Your task to perform on an android device: star an email in the gmail app Image 0: 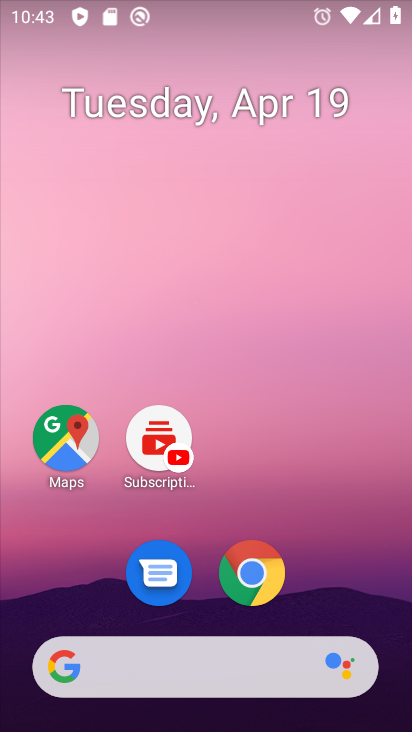
Step 0: click (258, 586)
Your task to perform on an android device: star an email in the gmail app Image 1: 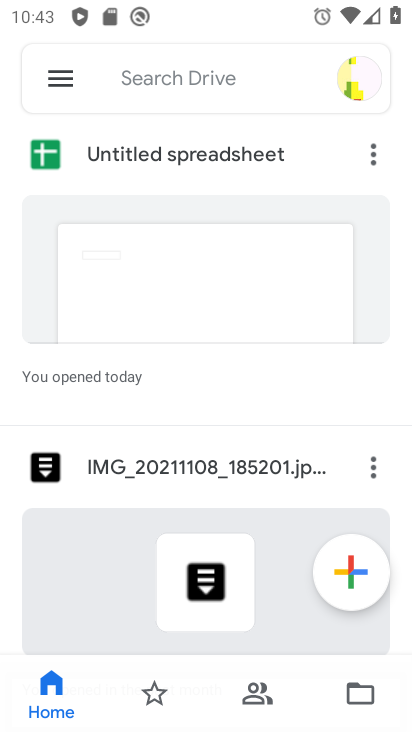
Step 1: press home button
Your task to perform on an android device: star an email in the gmail app Image 2: 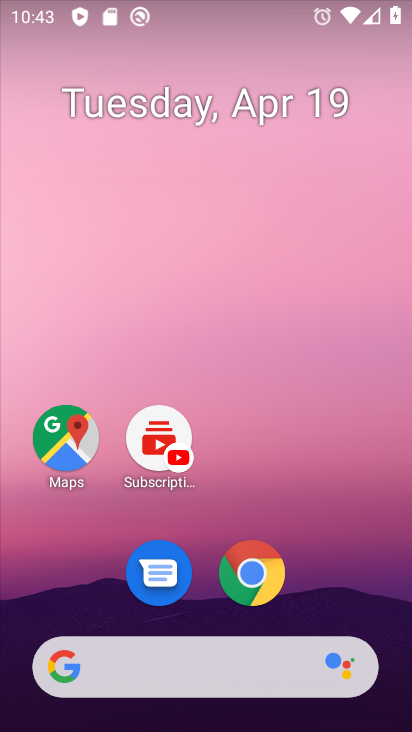
Step 2: drag from (296, 319) to (259, 138)
Your task to perform on an android device: star an email in the gmail app Image 3: 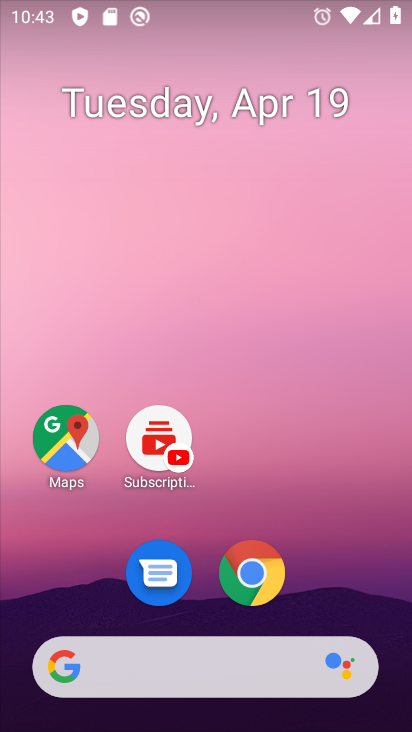
Step 3: drag from (338, 600) to (258, 71)
Your task to perform on an android device: star an email in the gmail app Image 4: 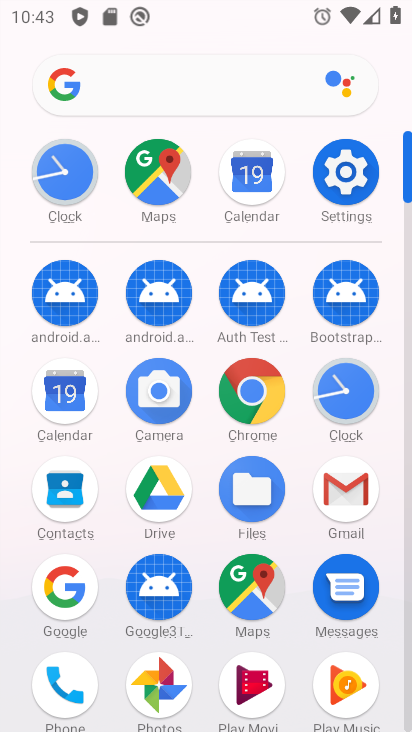
Step 4: click (350, 507)
Your task to perform on an android device: star an email in the gmail app Image 5: 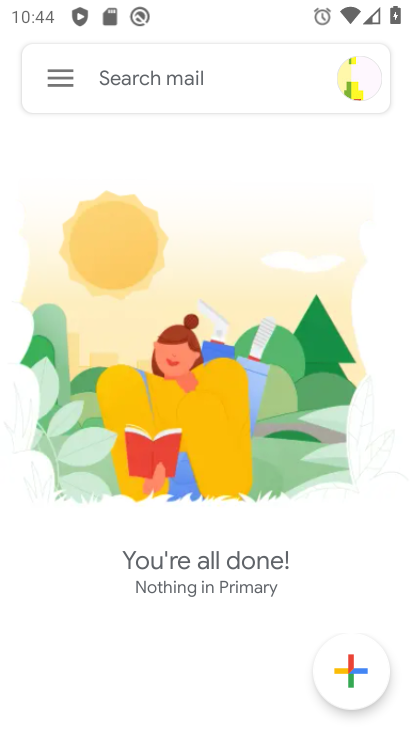
Step 5: click (63, 84)
Your task to perform on an android device: star an email in the gmail app Image 6: 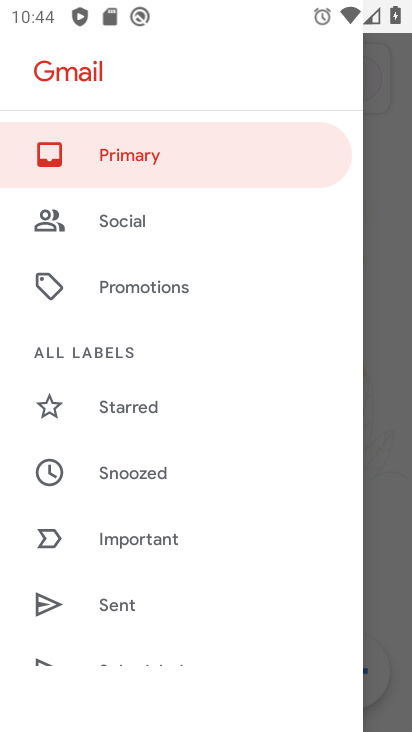
Step 6: click (381, 363)
Your task to perform on an android device: star an email in the gmail app Image 7: 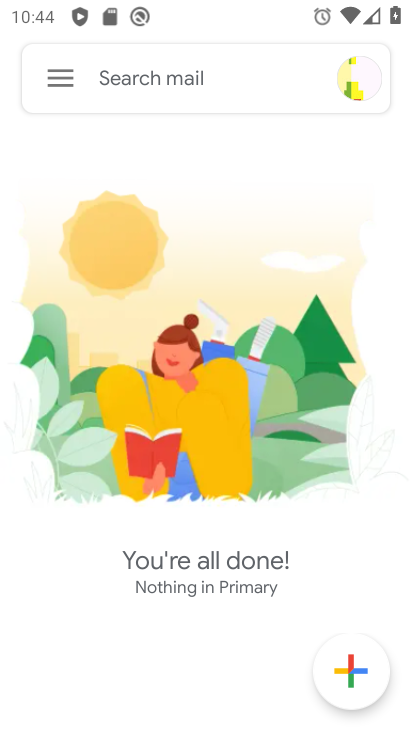
Step 7: task complete